Your task to perform on an android device: Play the last video I watched on Youtube Image 0: 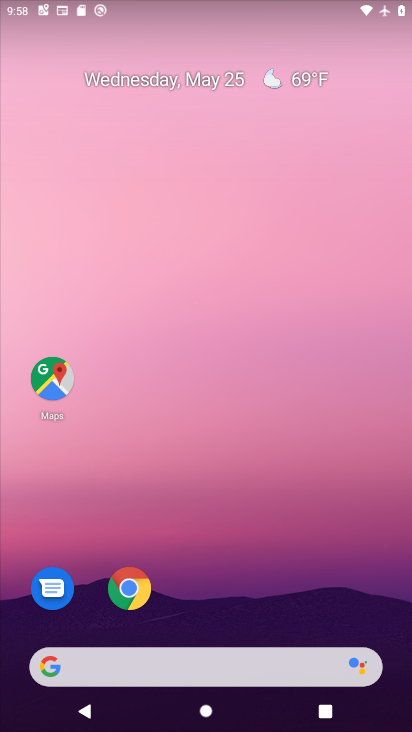
Step 0: drag from (376, 592) to (364, 170)
Your task to perform on an android device: Play the last video I watched on Youtube Image 1: 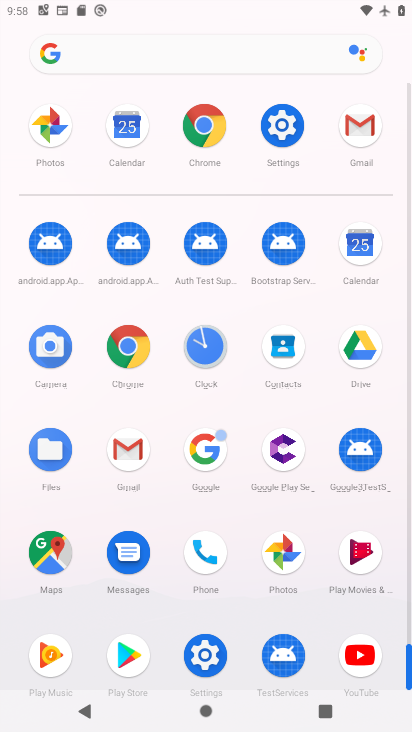
Step 1: click (362, 657)
Your task to perform on an android device: Play the last video I watched on Youtube Image 2: 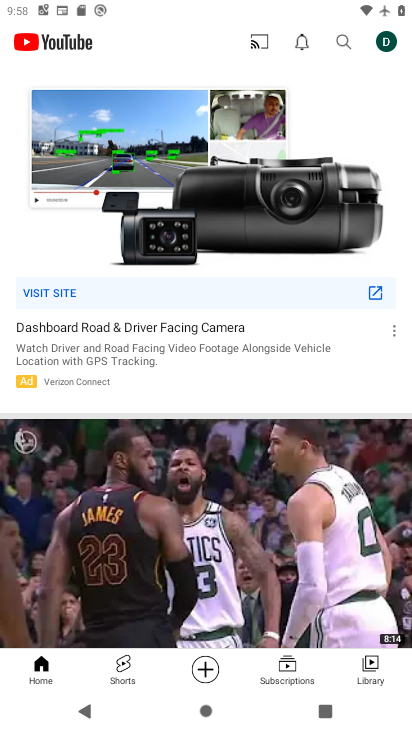
Step 2: click (372, 673)
Your task to perform on an android device: Play the last video I watched on Youtube Image 3: 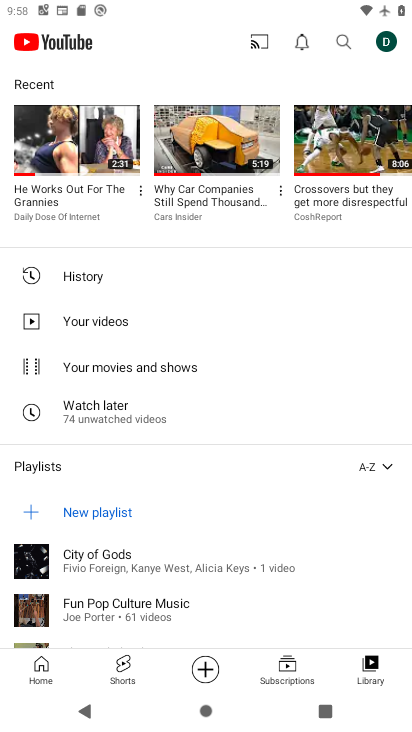
Step 3: click (81, 140)
Your task to perform on an android device: Play the last video I watched on Youtube Image 4: 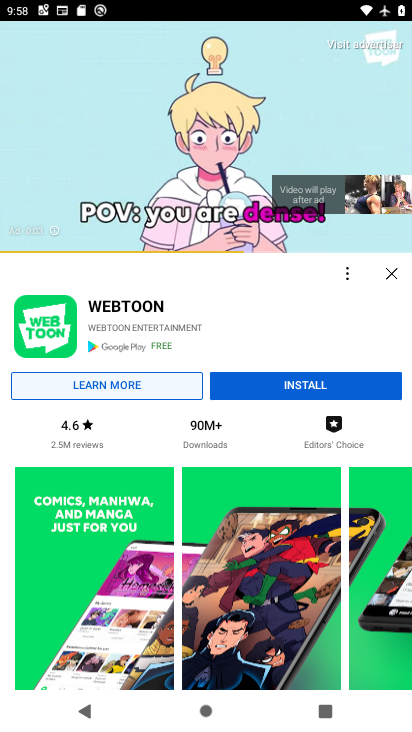
Step 4: task complete